Your task to perform on an android device: Go to Google maps Image 0: 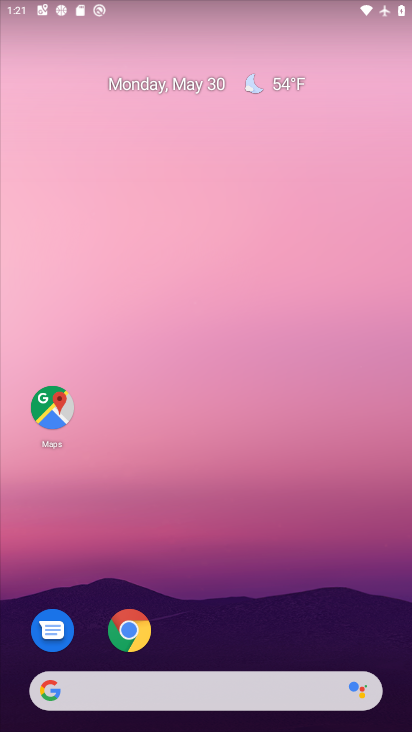
Step 0: press home button
Your task to perform on an android device: Go to Google maps Image 1: 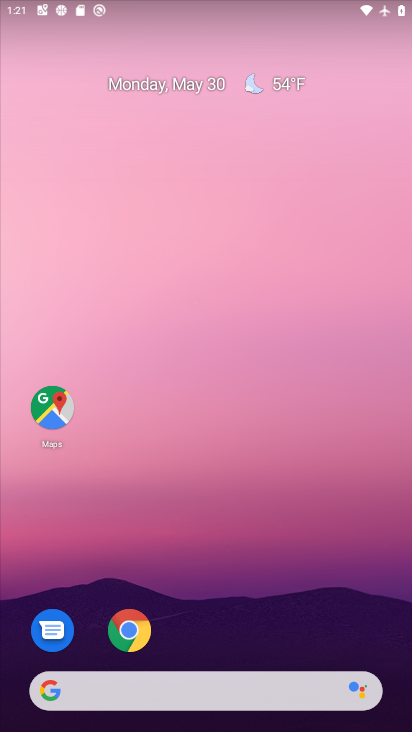
Step 1: click (52, 413)
Your task to perform on an android device: Go to Google maps Image 2: 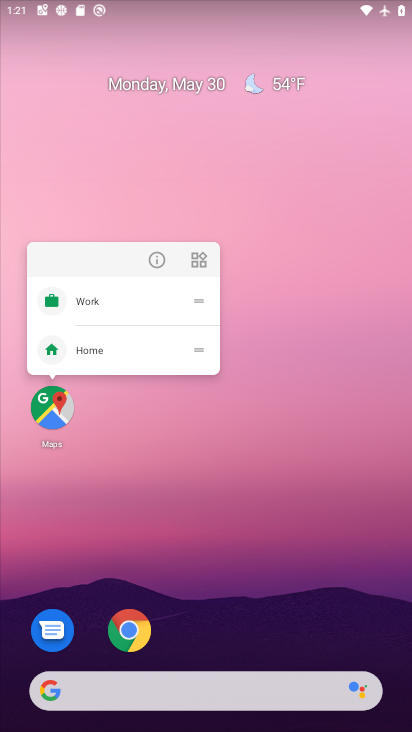
Step 2: click (52, 414)
Your task to perform on an android device: Go to Google maps Image 3: 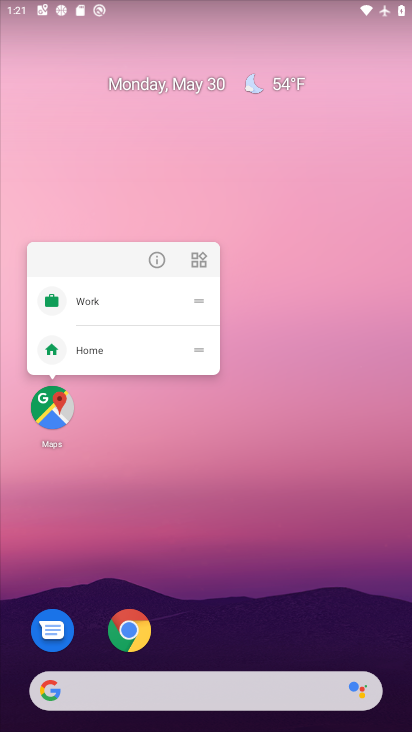
Step 3: click (52, 413)
Your task to perform on an android device: Go to Google maps Image 4: 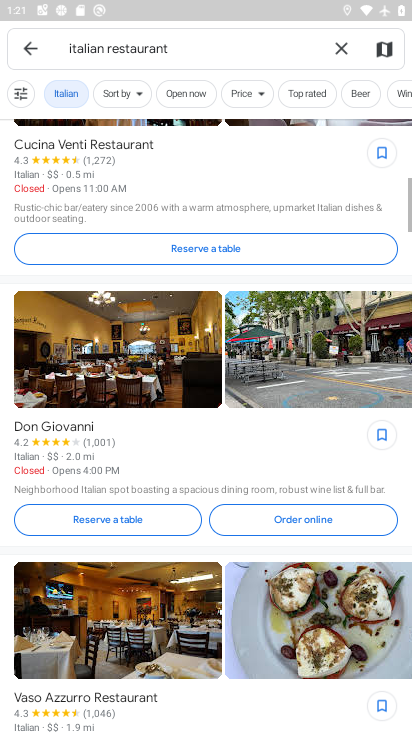
Step 4: click (25, 46)
Your task to perform on an android device: Go to Google maps Image 5: 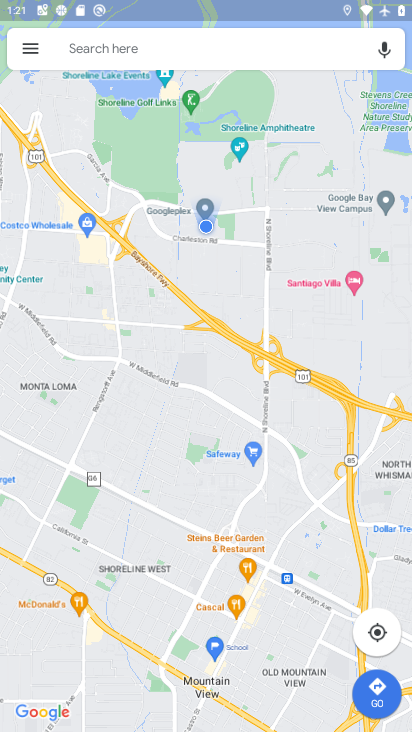
Step 5: task complete